Your task to perform on an android device: See recent photos Image 0: 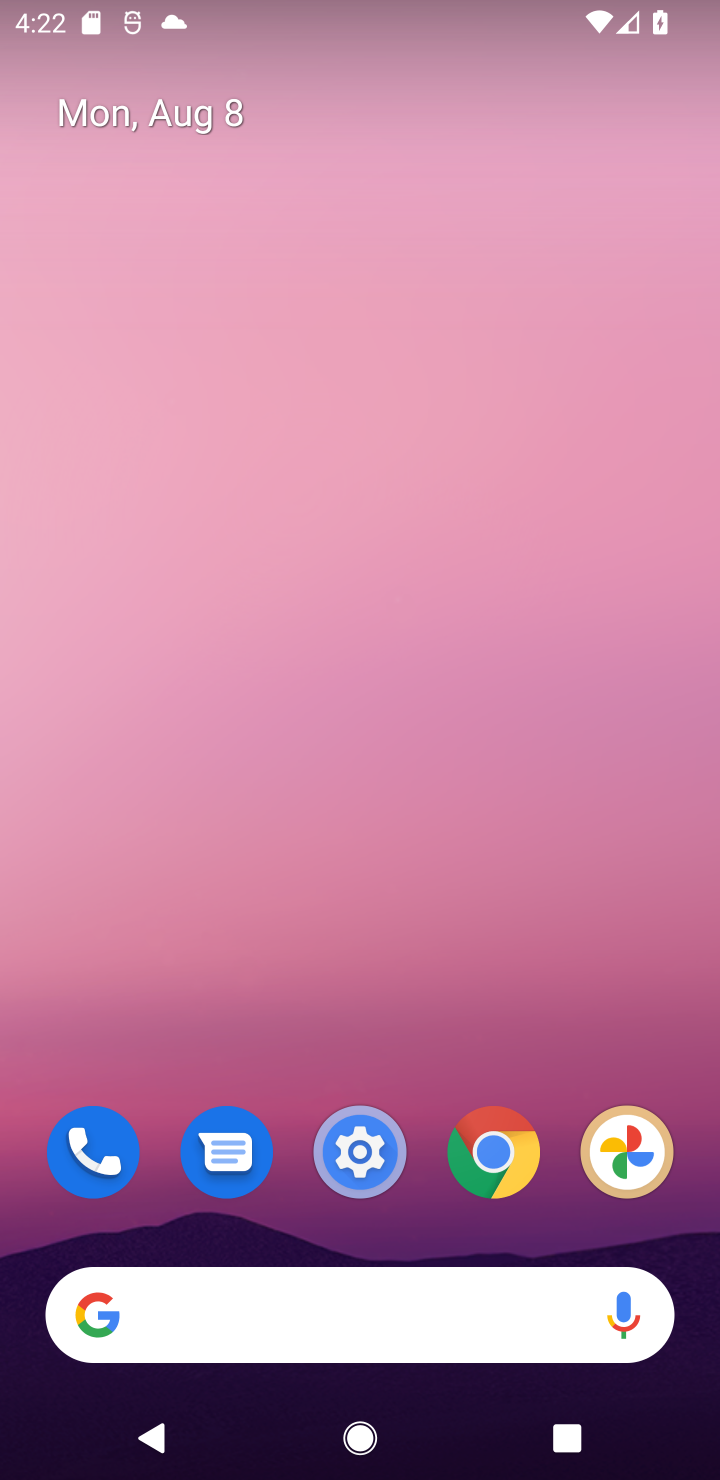
Step 0: click (642, 1150)
Your task to perform on an android device: See recent photos Image 1: 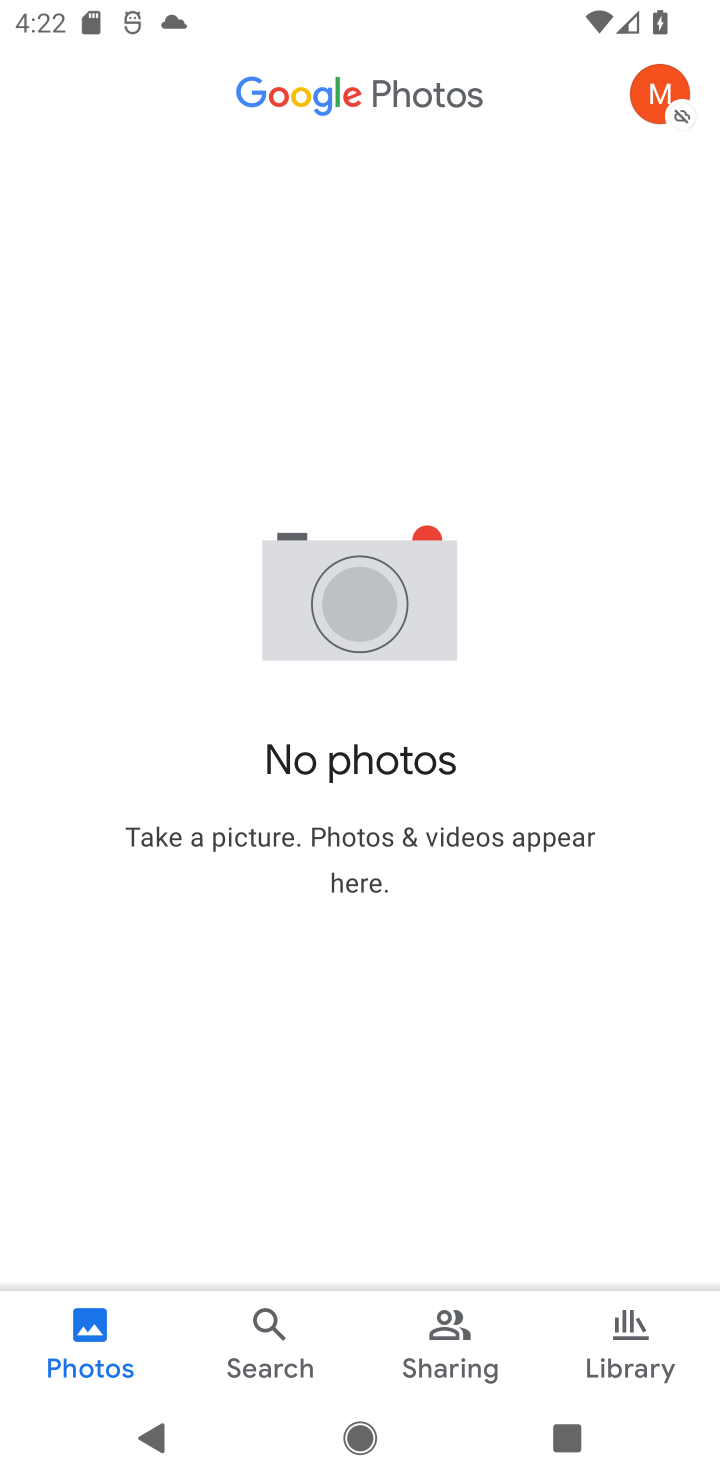
Step 1: click (84, 1361)
Your task to perform on an android device: See recent photos Image 2: 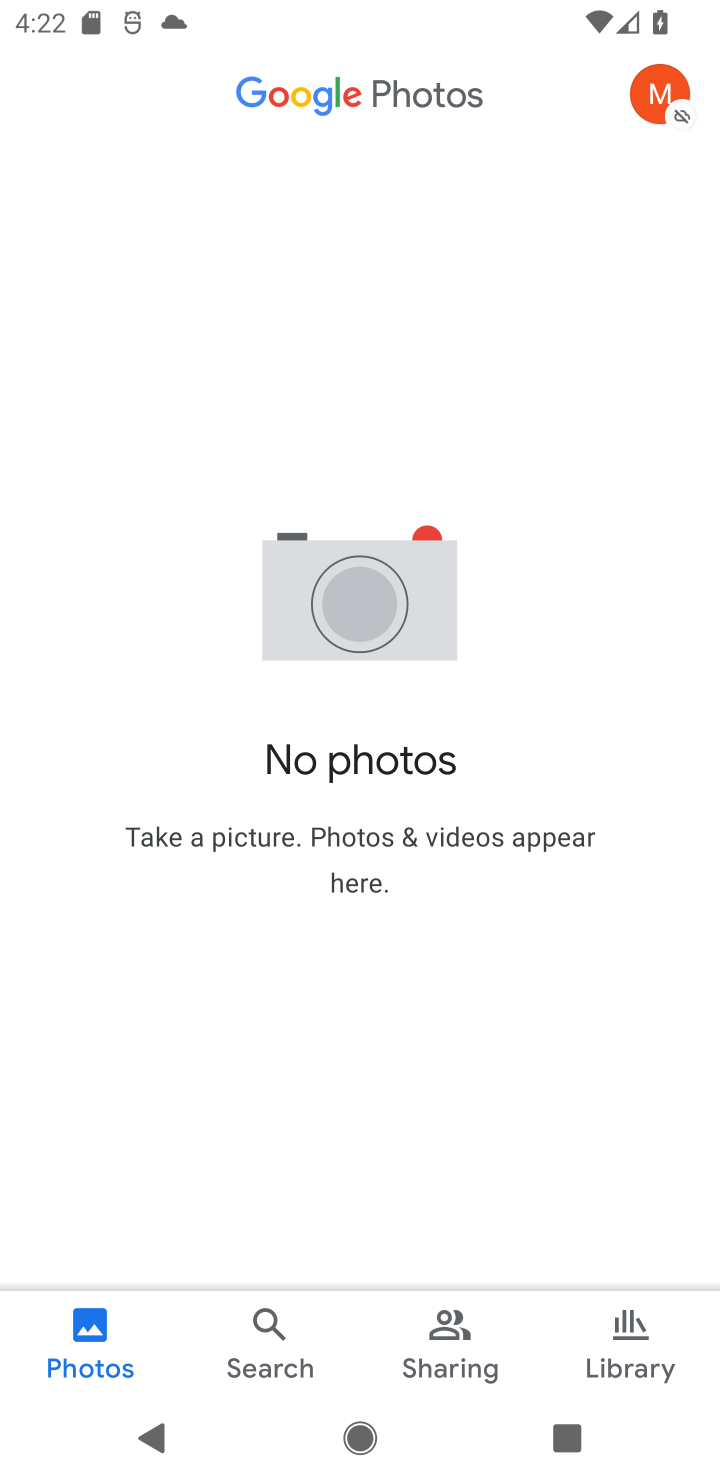
Step 2: task complete